Your task to perform on an android device: turn off sleep mode Image 0: 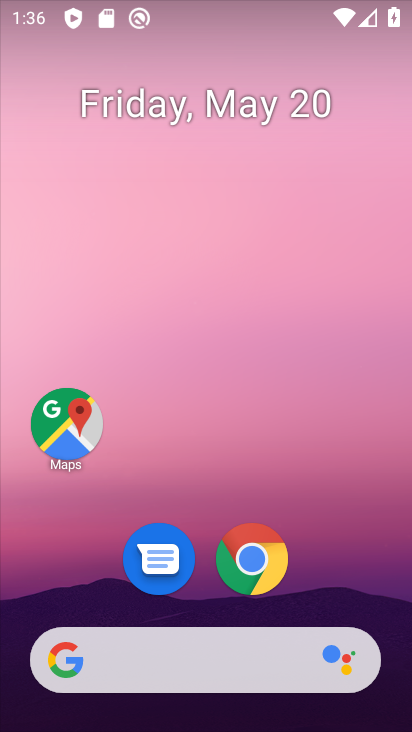
Step 0: drag from (335, 591) to (322, 60)
Your task to perform on an android device: turn off sleep mode Image 1: 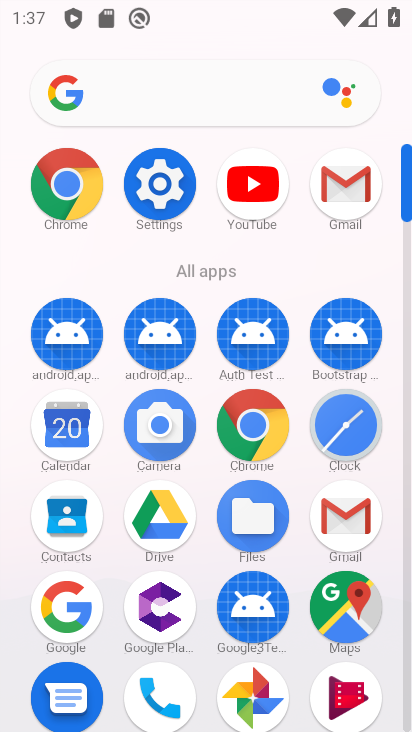
Step 1: click (160, 178)
Your task to perform on an android device: turn off sleep mode Image 2: 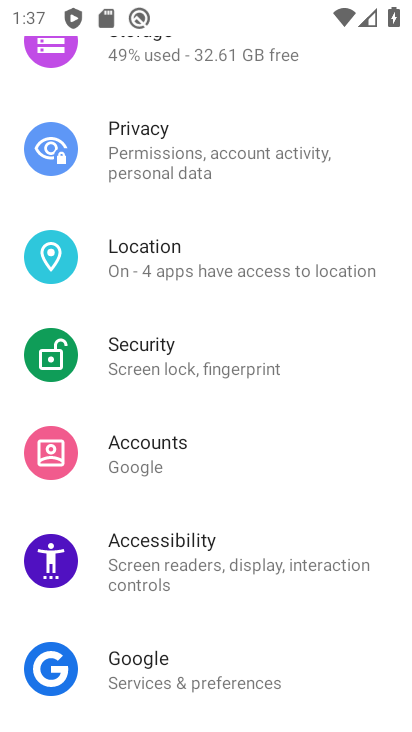
Step 2: task complete